Your task to perform on an android device: open chrome and create a bookmark for the current page Image 0: 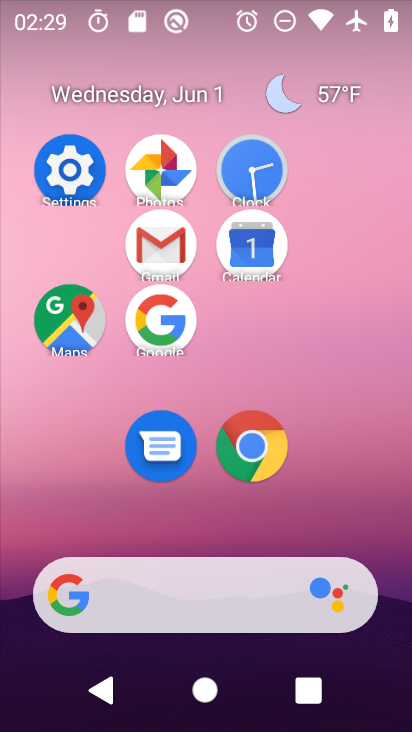
Step 0: click (268, 463)
Your task to perform on an android device: open chrome and create a bookmark for the current page Image 1: 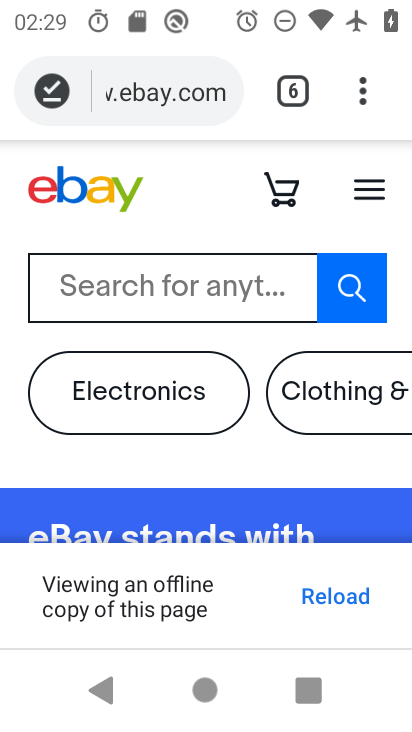
Step 1: click (378, 88)
Your task to perform on an android device: open chrome and create a bookmark for the current page Image 2: 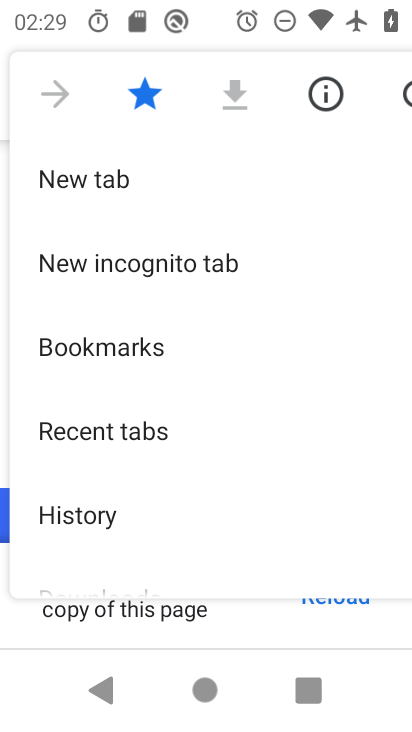
Step 2: task complete